Your task to perform on an android device: Show me popular games on the Play Store Image 0: 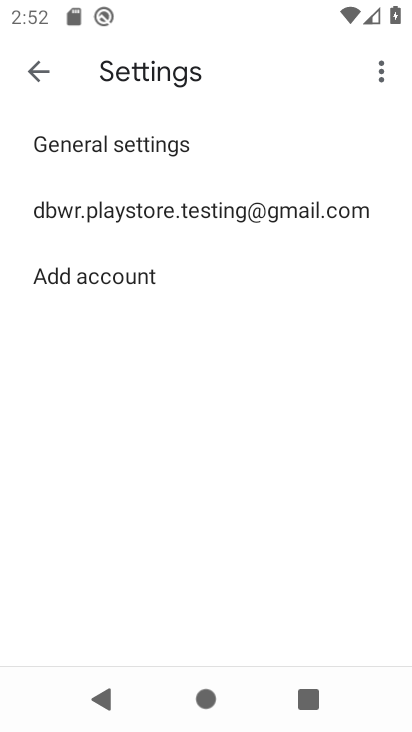
Step 0: press home button
Your task to perform on an android device: Show me popular games on the Play Store Image 1: 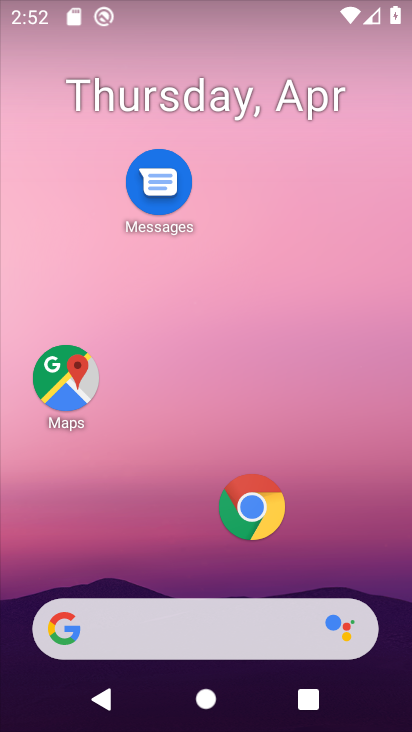
Step 1: drag from (173, 550) to (202, 90)
Your task to perform on an android device: Show me popular games on the Play Store Image 2: 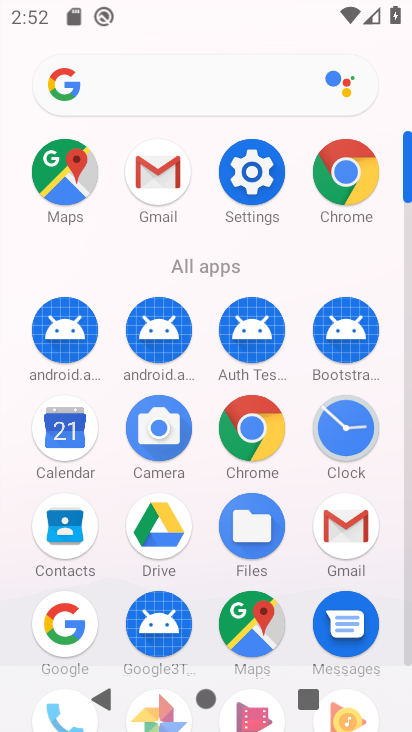
Step 2: drag from (207, 624) to (223, 227)
Your task to perform on an android device: Show me popular games on the Play Store Image 3: 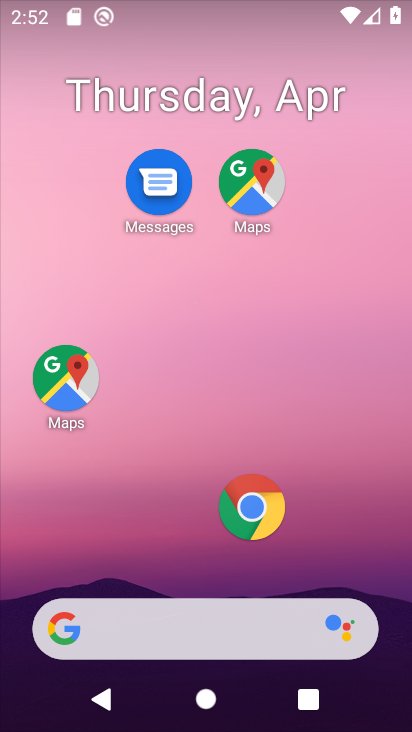
Step 3: drag from (175, 573) to (204, 141)
Your task to perform on an android device: Show me popular games on the Play Store Image 4: 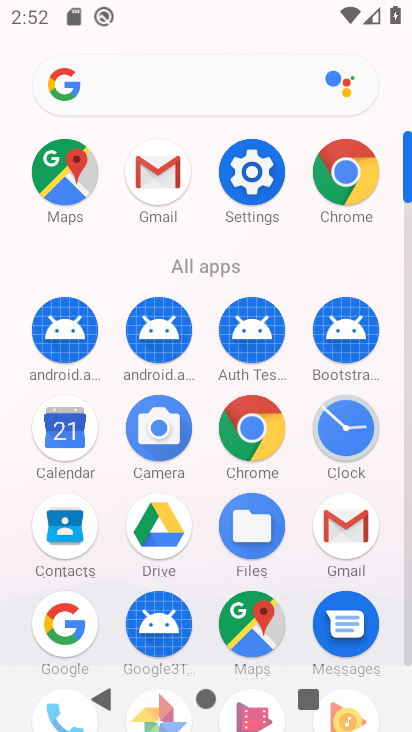
Step 4: drag from (205, 580) to (244, 193)
Your task to perform on an android device: Show me popular games on the Play Store Image 5: 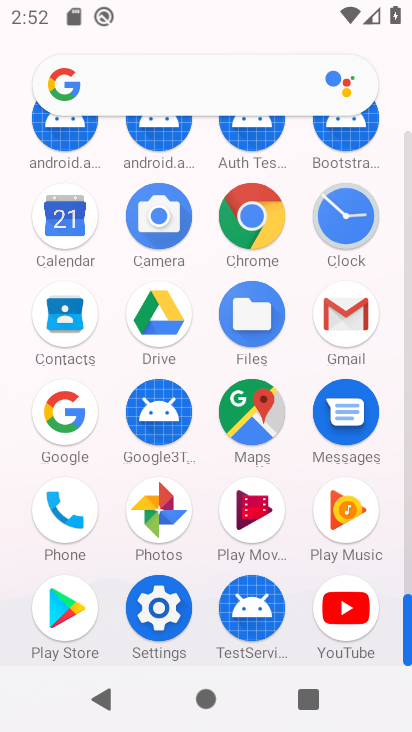
Step 5: click (54, 613)
Your task to perform on an android device: Show me popular games on the Play Store Image 6: 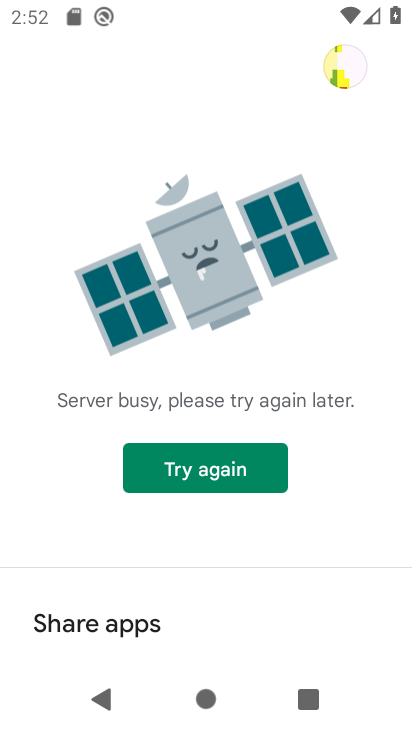
Step 6: click (207, 485)
Your task to perform on an android device: Show me popular games on the Play Store Image 7: 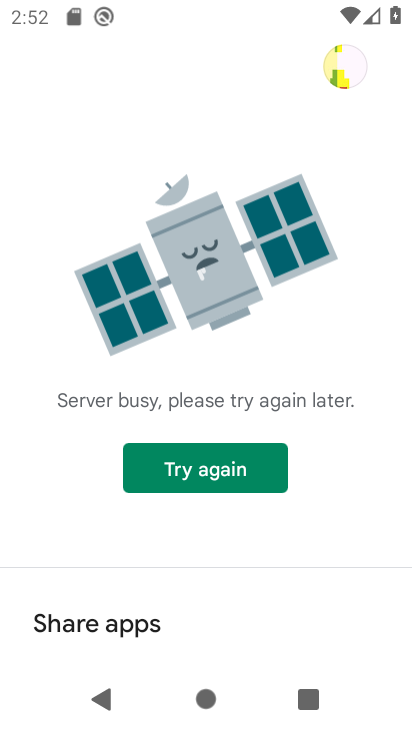
Step 7: click (202, 484)
Your task to perform on an android device: Show me popular games on the Play Store Image 8: 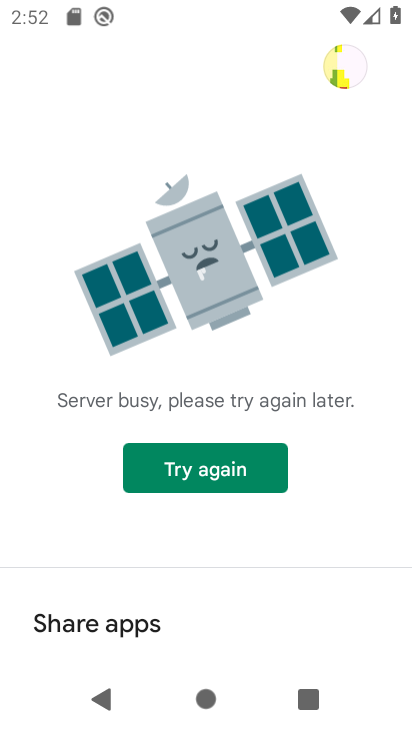
Step 8: click (202, 482)
Your task to perform on an android device: Show me popular games on the Play Store Image 9: 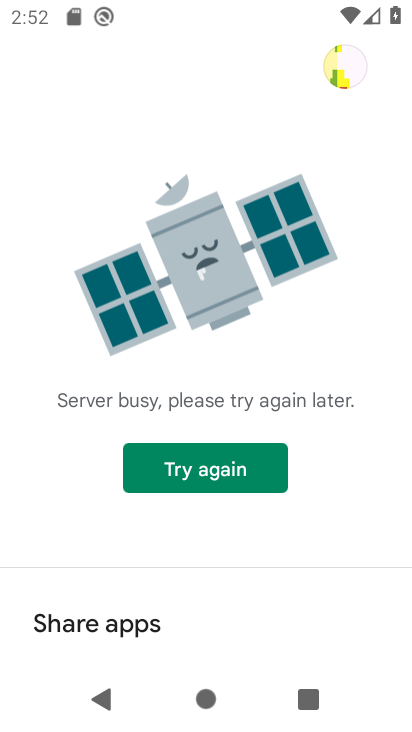
Step 9: click (202, 482)
Your task to perform on an android device: Show me popular games on the Play Store Image 10: 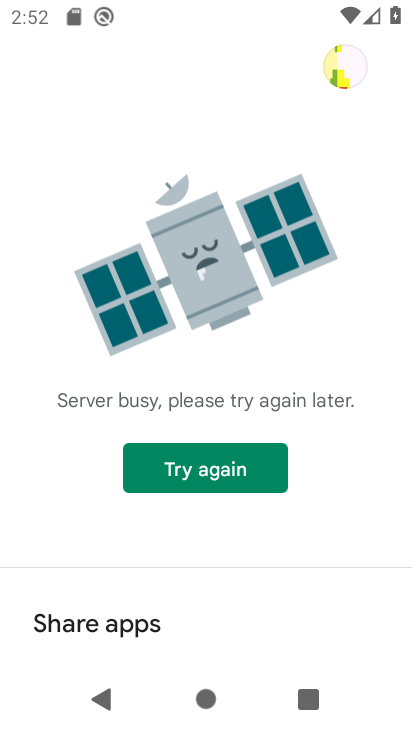
Step 10: task complete